Your task to perform on an android device: find snoozed emails in the gmail app Image 0: 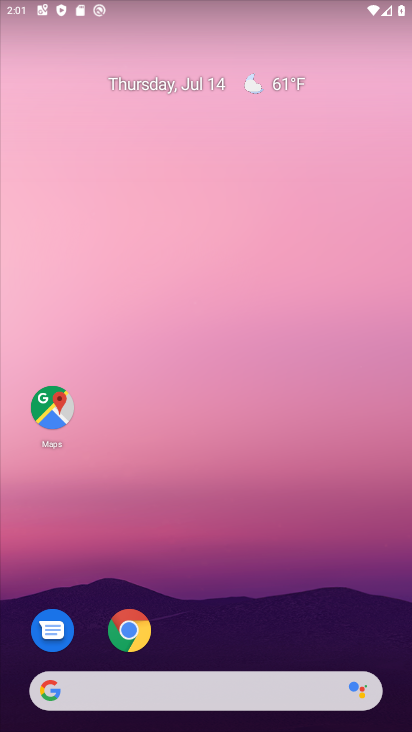
Step 0: drag from (177, 697) to (316, 142)
Your task to perform on an android device: find snoozed emails in the gmail app Image 1: 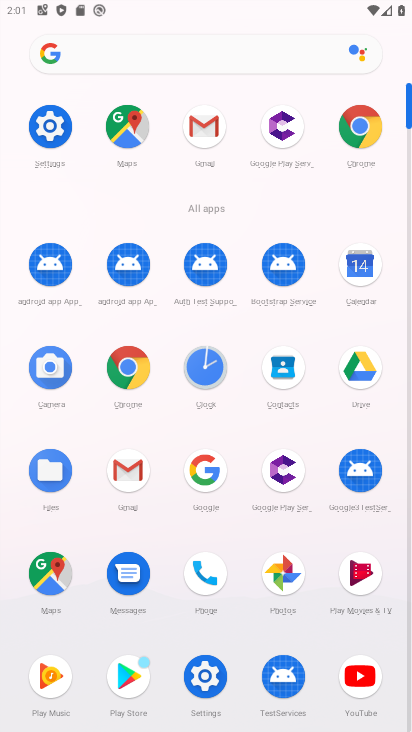
Step 1: click (210, 135)
Your task to perform on an android device: find snoozed emails in the gmail app Image 2: 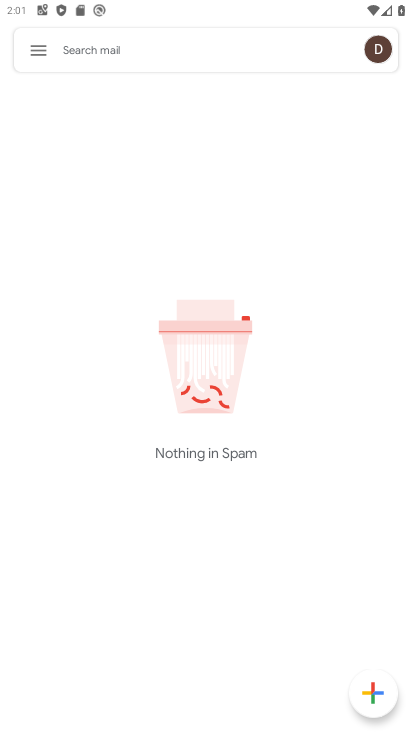
Step 2: click (35, 46)
Your task to perform on an android device: find snoozed emails in the gmail app Image 3: 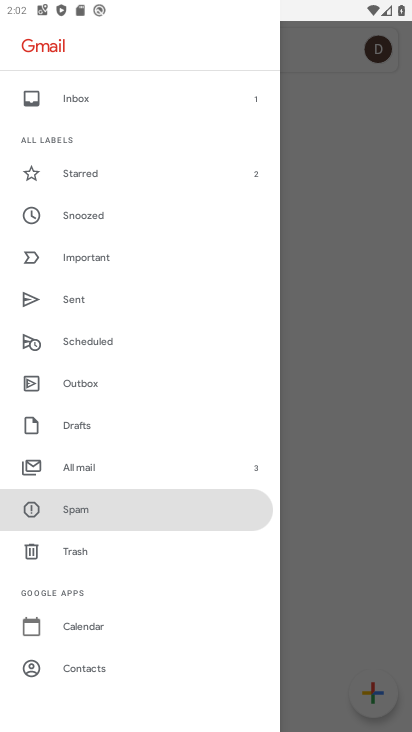
Step 3: click (100, 219)
Your task to perform on an android device: find snoozed emails in the gmail app Image 4: 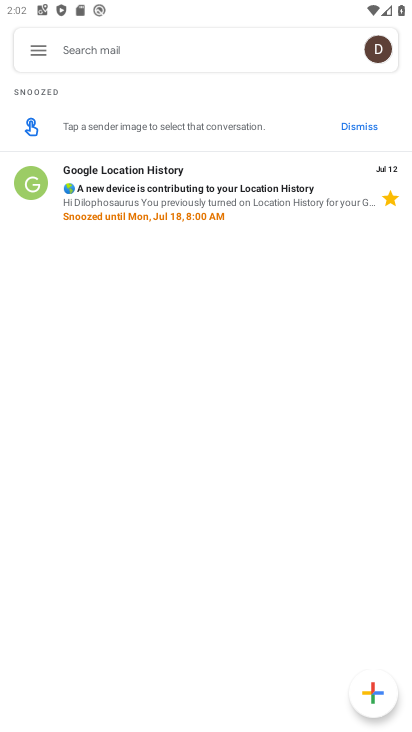
Step 4: task complete